Your task to perform on an android device: change alarm snooze length Image 0: 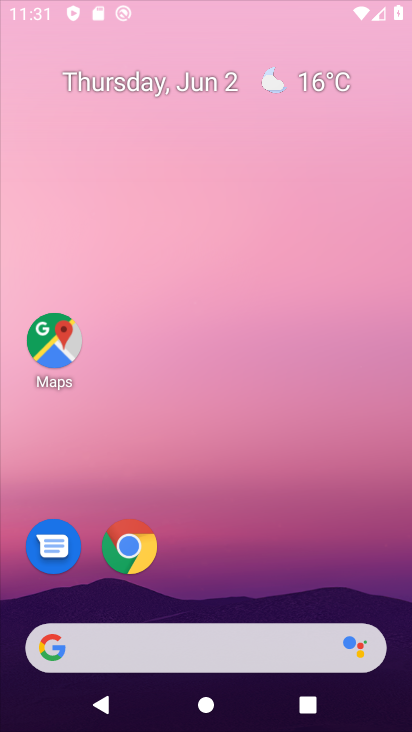
Step 0: press home button
Your task to perform on an android device: change alarm snooze length Image 1: 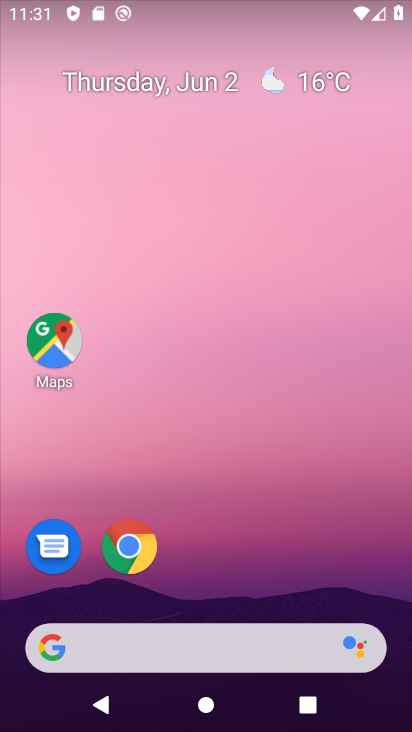
Step 1: drag from (274, 540) to (119, 96)
Your task to perform on an android device: change alarm snooze length Image 2: 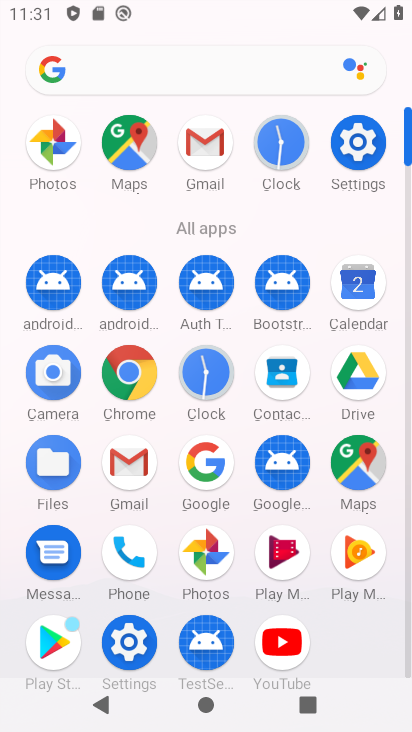
Step 2: click (209, 372)
Your task to perform on an android device: change alarm snooze length Image 3: 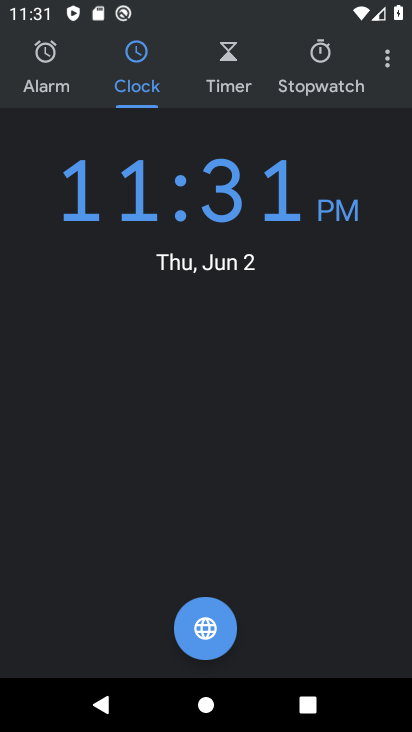
Step 3: click (393, 50)
Your task to perform on an android device: change alarm snooze length Image 4: 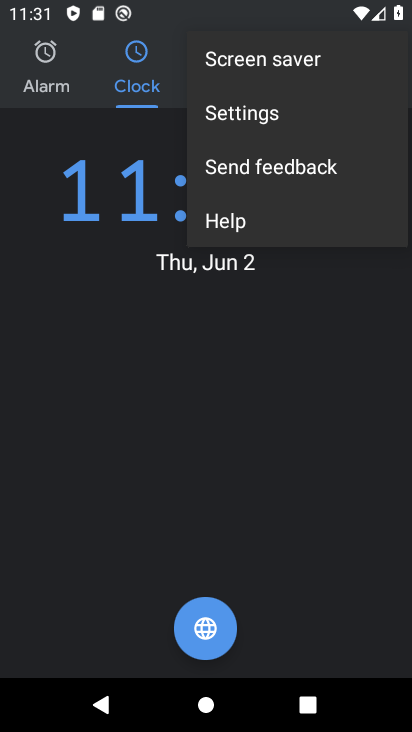
Step 4: click (252, 116)
Your task to perform on an android device: change alarm snooze length Image 5: 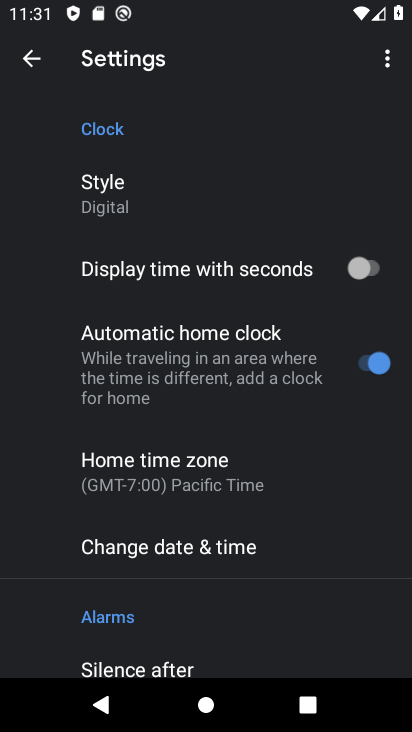
Step 5: drag from (276, 588) to (255, 383)
Your task to perform on an android device: change alarm snooze length Image 6: 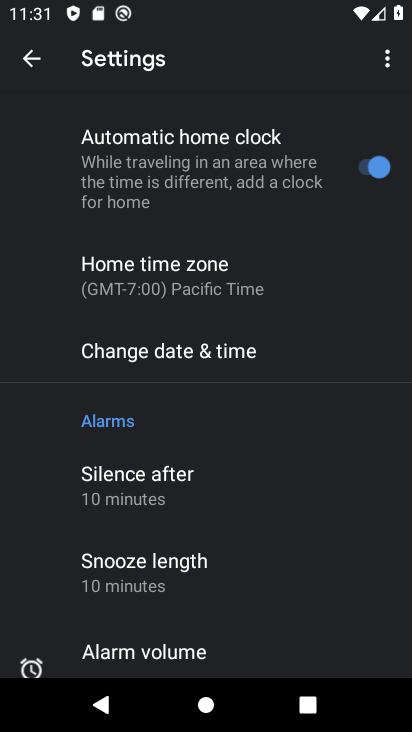
Step 6: click (167, 560)
Your task to perform on an android device: change alarm snooze length Image 7: 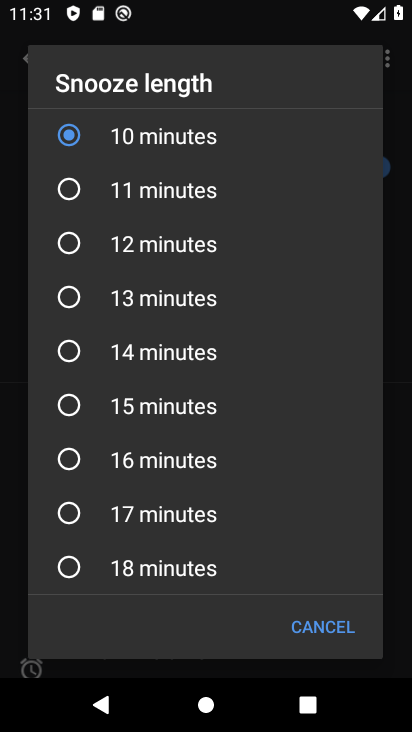
Step 7: click (69, 238)
Your task to perform on an android device: change alarm snooze length Image 8: 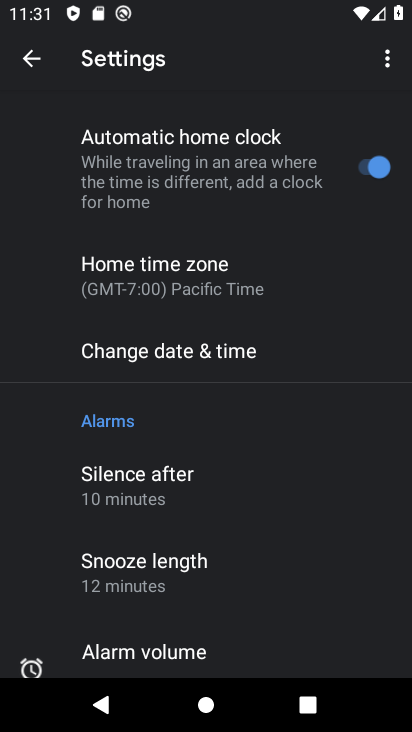
Step 8: task complete